Your task to perform on an android device: What is the news today? Image 0: 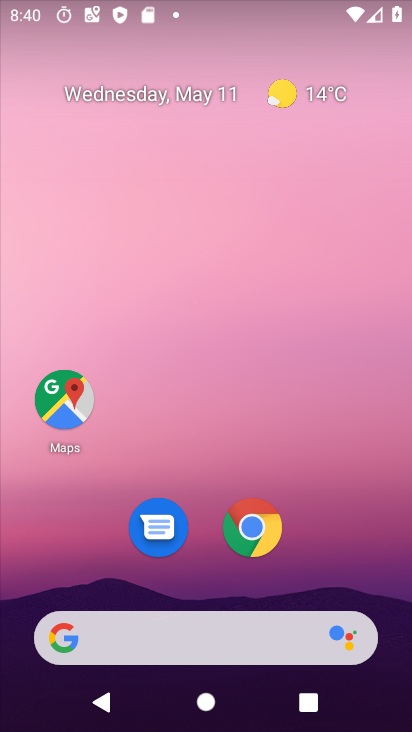
Step 0: drag from (262, 631) to (369, 5)
Your task to perform on an android device: What is the news today? Image 1: 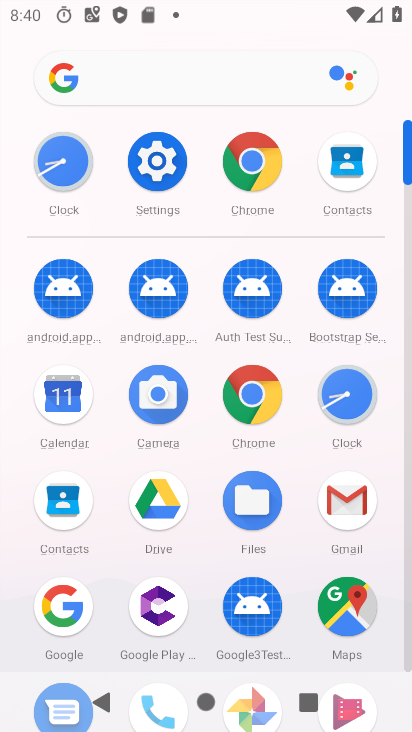
Step 1: drag from (260, 374) to (299, 237)
Your task to perform on an android device: What is the news today? Image 2: 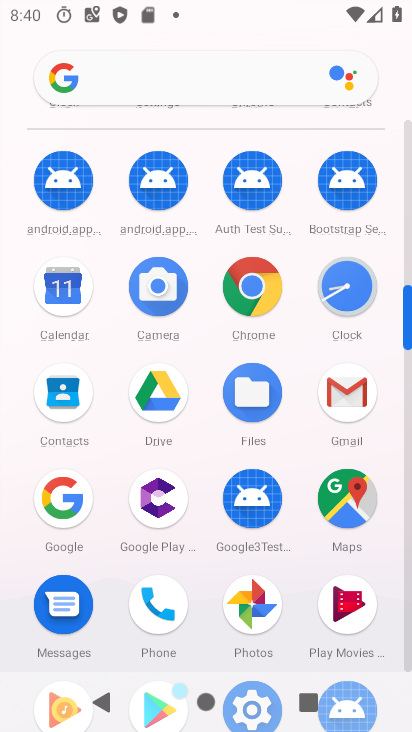
Step 2: click (84, 501)
Your task to perform on an android device: What is the news today? Image 3: 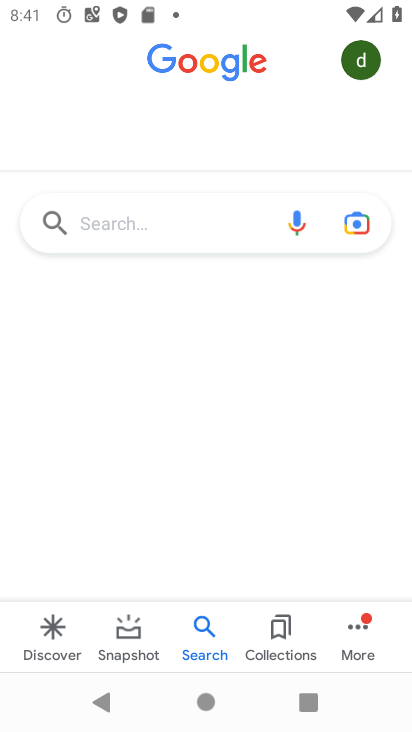
Step 3: click (159, 217)
Your task to perform on an android device: What is the news today? Image 4: 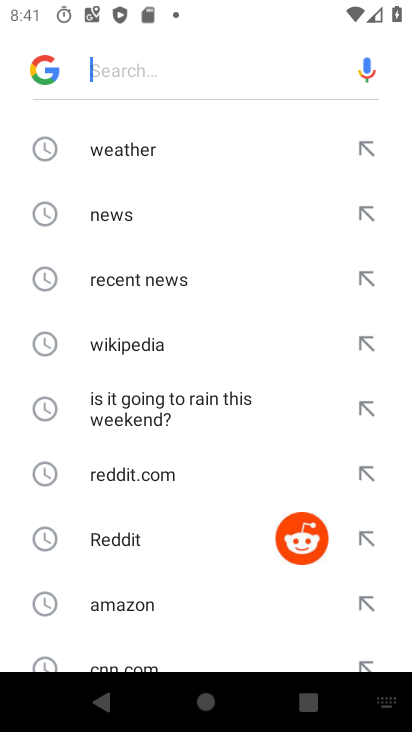
Step 4: click (159, 217)
Your task to perform on an android device: What is the news today? Image 5: 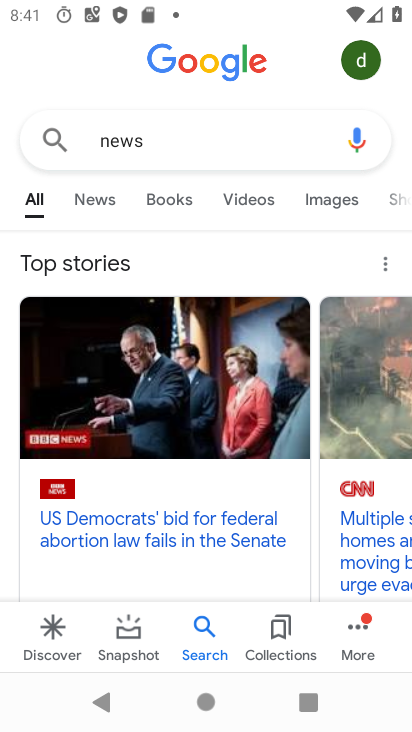
Step 5: task complete